Your task to perform on an android device: Open the web browser Image 0: 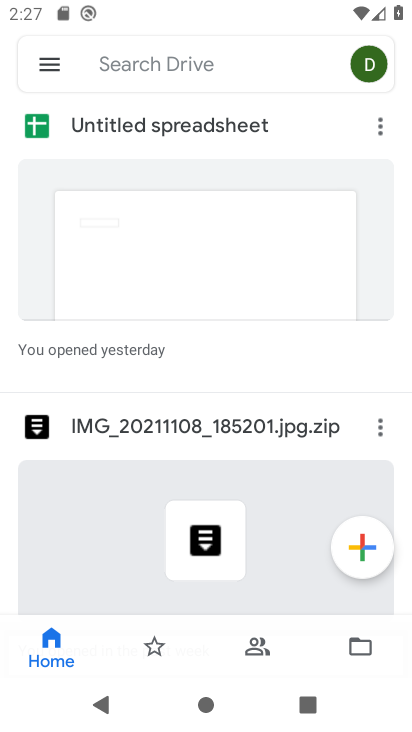
Step 0: click (44, 60)
Your task to perform on an android device: Open the web browser Image 1: 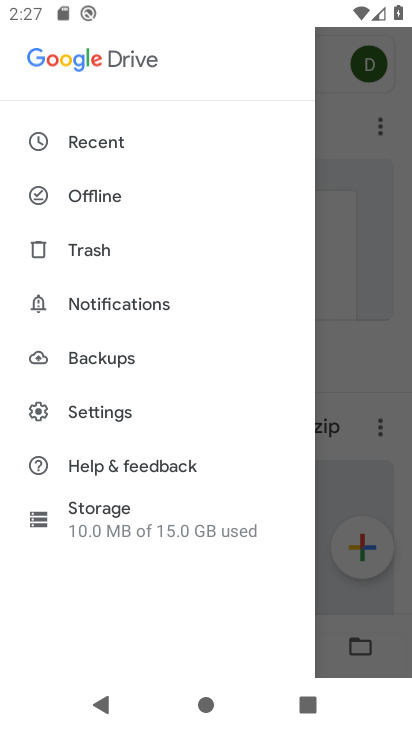
Step 1: press home button
Your task to perform on an android device: Open the web browser Image 2: 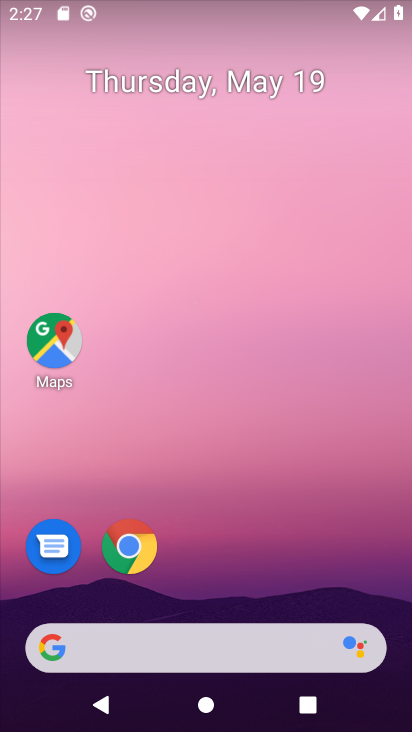
Step 2: click (126, 541)
Your task to perform on an android device: Open the web browser Image 3: 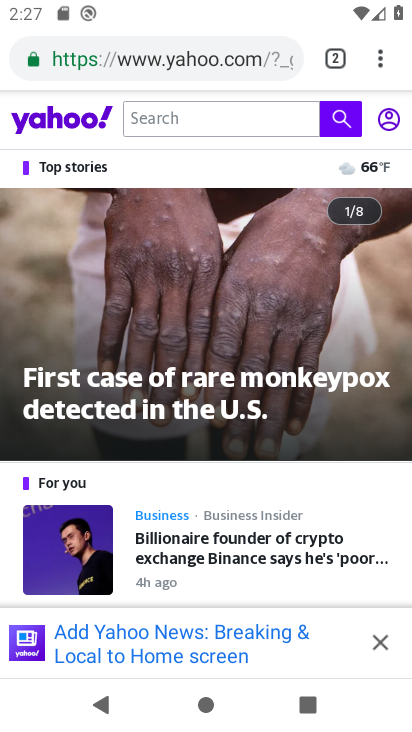
Step 3: click (380, 638)
Your task to perform on an android device: Open the web browser Image 4: 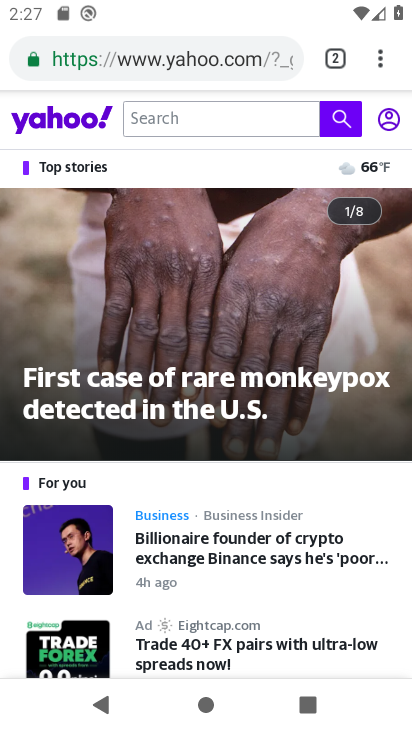
Step 4: task complete